Your task to perform on an android device: turn on bluetooth scan Image 0: 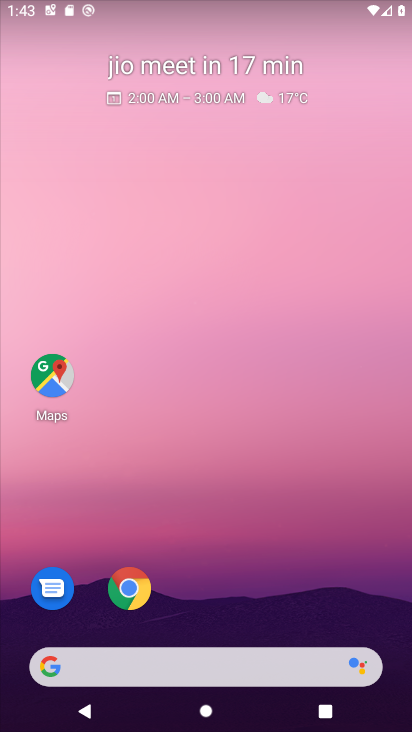
Step 0: drag from (282, 605) to (342, 0)
Your task to perform on an android device: turn on bluetooth scan Image 1: 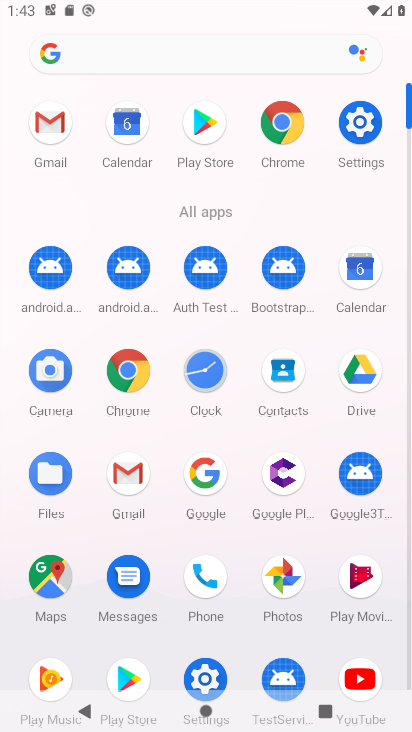
Step 1: click (366, 142)
Your task to perform on an android device: turn on bluetooth scan Image 2: 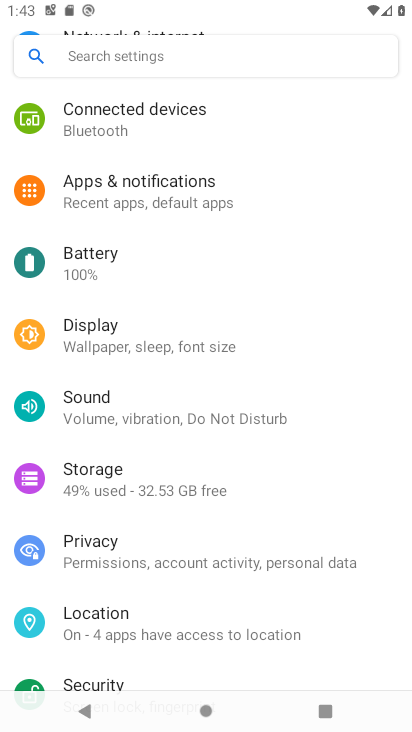
Step 2: click (168, 626)
Your task to perform on an android device: turn on bluetooth scan Image 3: 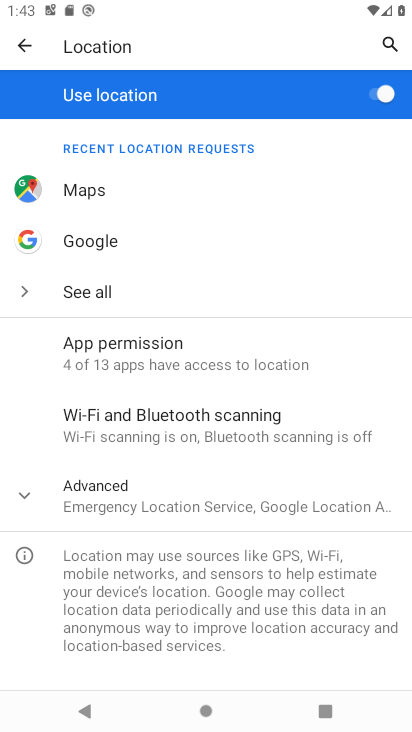
Step 3: click (227, 422)
Your task to perform on an android device: turn on bluetooth scan Image 4: 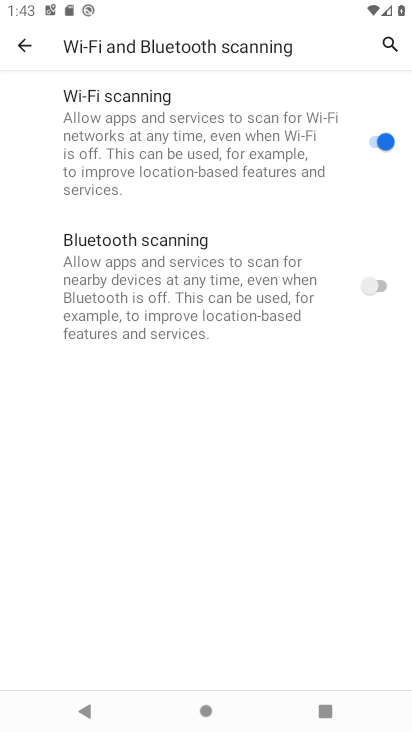
Step 4: click (382, 290)
Your task to perform on an android device: turn on bluetooth scan Image 5: 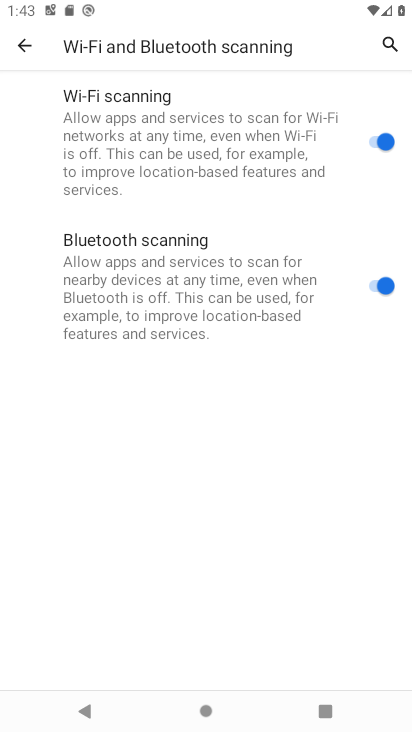
Step 5: task complete